Your task to perform on an android device: turn on translation in the chrome app Image 0: 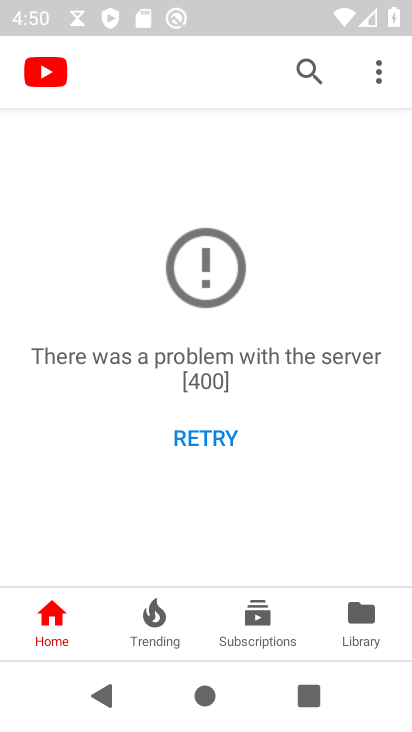
Step 0: press back button
Your task to perform on an android device: turn on translation in the chrome app Image 1: 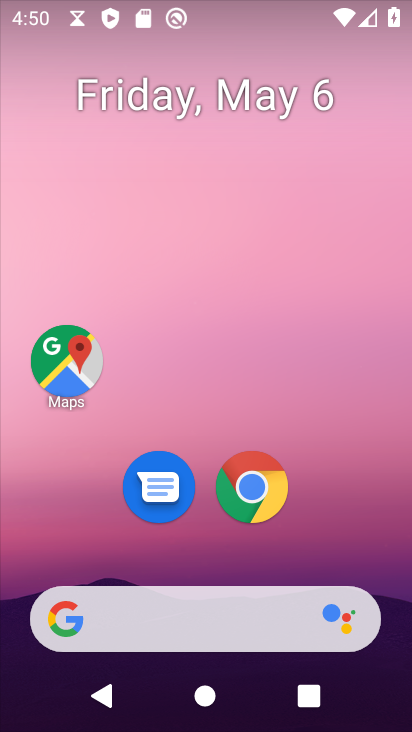
Step 1: click (251, 489)
Your task to perform on an android device: turn on translation in the chrome app Image 2: 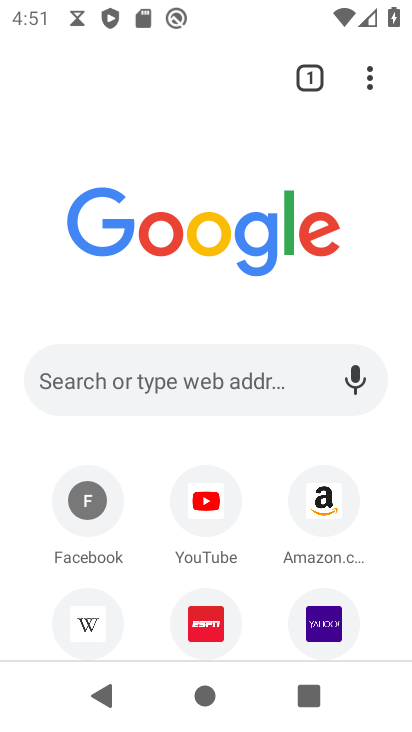
Step 2: click (368, 81)
Your task to perform on an android device: turn on translation in the chrome app Image 3: 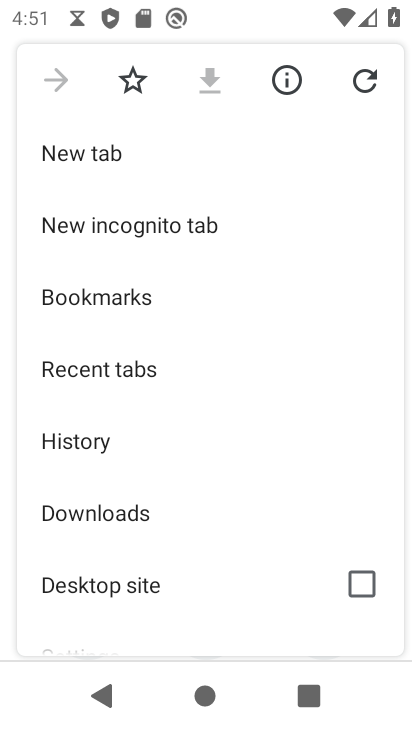
Step 3: drag from (164, 476) to (208, 370)
Your task to perform on an android device: turn on translation in the chrome app Image 4: 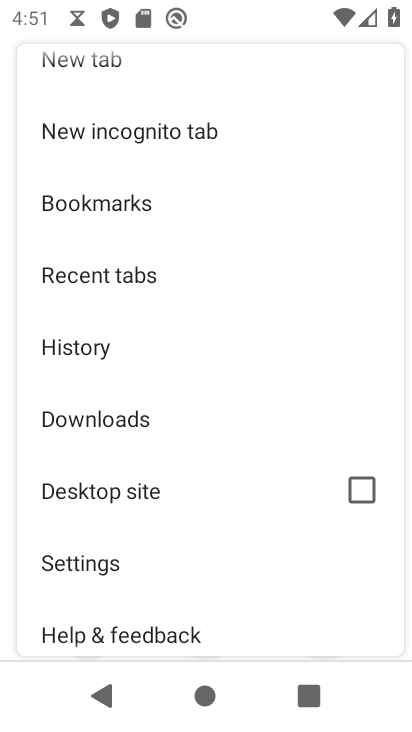
Step 4: drag from (170, 524) to (204, 403)
Your task to perform on an android device: turn on translation in the chrome app Image 5: 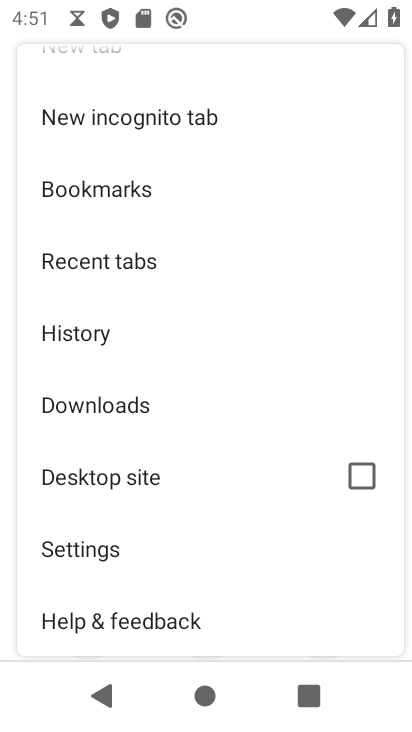
Step 5: click (96, 545)
Your task to perform on an android device: turn on translation in the chrome app Image 6: 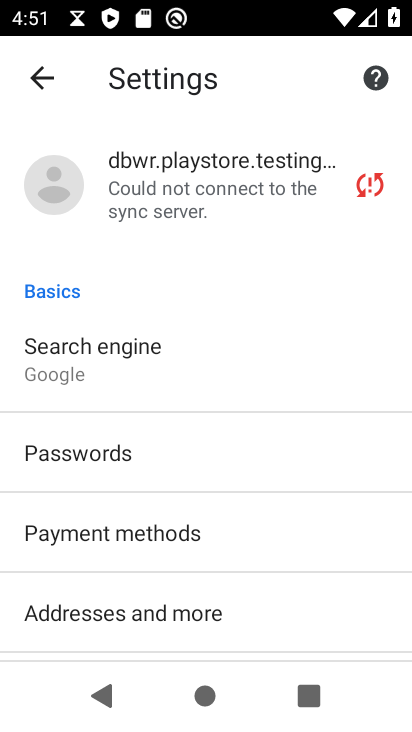
Step 6: drag from (226, 541) to (263, 392)
Your task to perform on an android device: turn on translation in the chrome app Image 7: 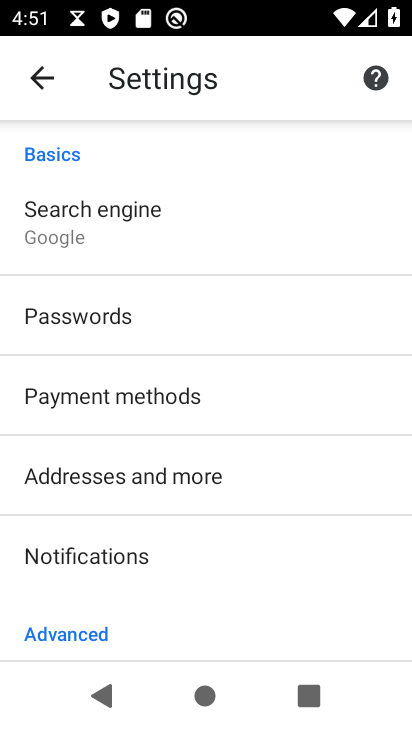
Step 7: drag from (193, 560) to (219, 389)
Your task to perform on an android device: turn on translation in the chrome app Image 8: 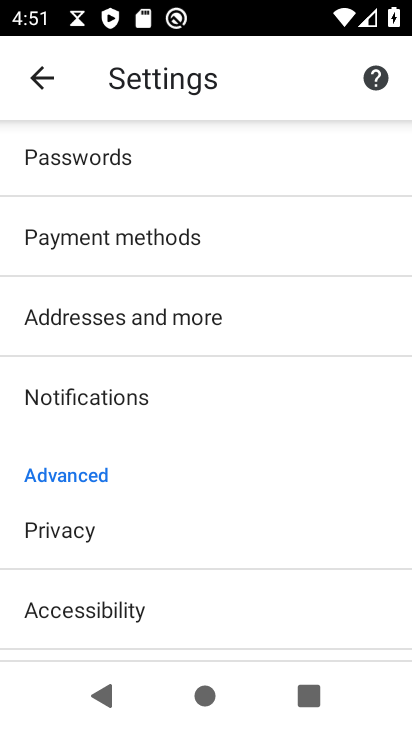
Step 8: drag from (155, 541) to (193, 402)
Your task to perform on an android device: turn on translation in the chrome app Image 9: 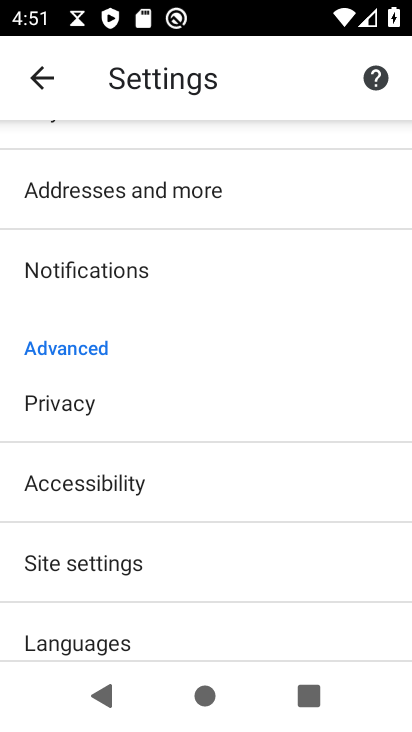
Step 9: drag from (169, 564) to (202, 443)
Your task to perform on an android device: turn on translation in the chrome app Image 10: 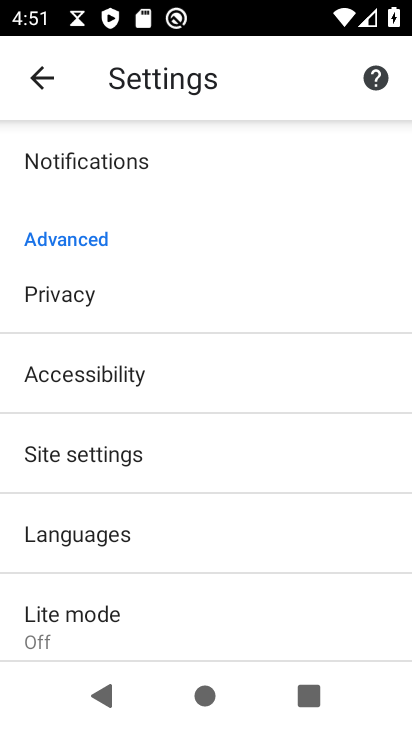
Step 10: click (94, 540)
Your task to perform on an android device: turn on translation in the chrome app Image 11: 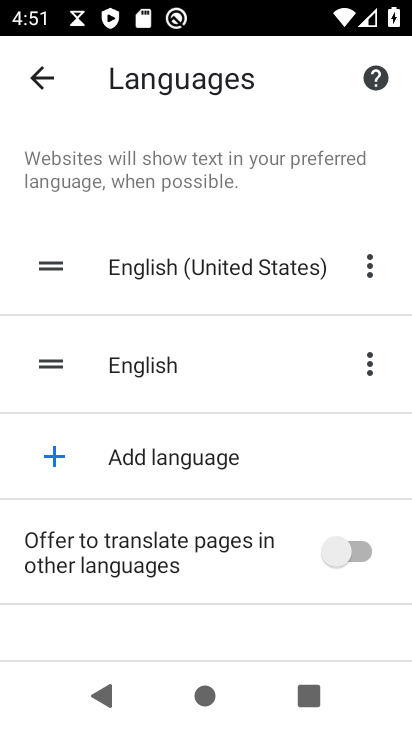
Step 11: click (336, 546)
Your task to perform on an android device: turn on translation in the chrome app Image 12: 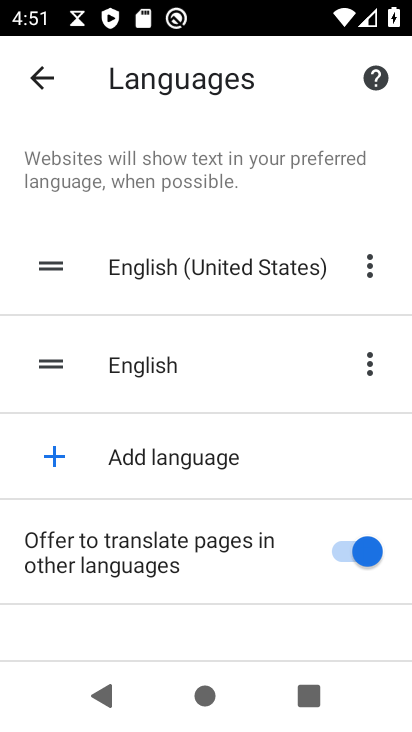
Step 12: task complete